Your task to perform on an android device: all mails in gmail Image 0: 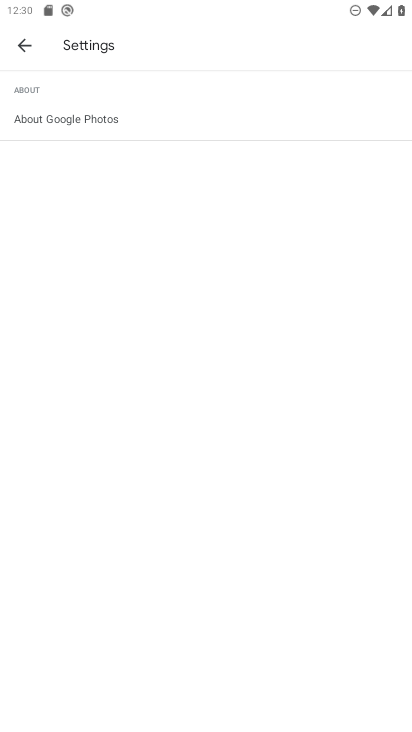
Step 0: press home button
Your task to perform on an android device: all mails in gmail Image 1: 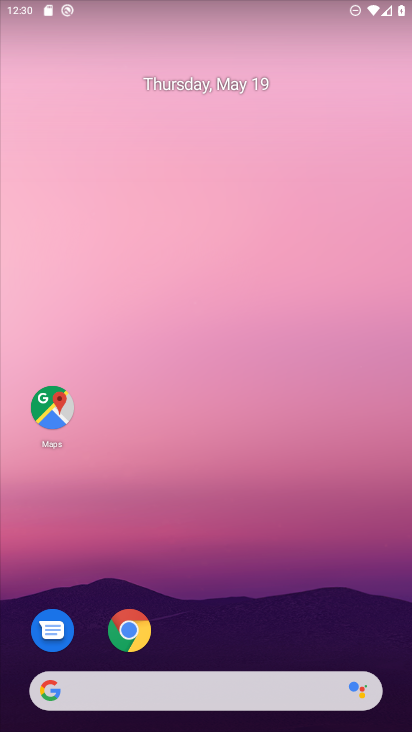
Step 1: drag from (178, 618) to (277, 168)
Your task to perform on an android device: all mails in gmail Image 2: 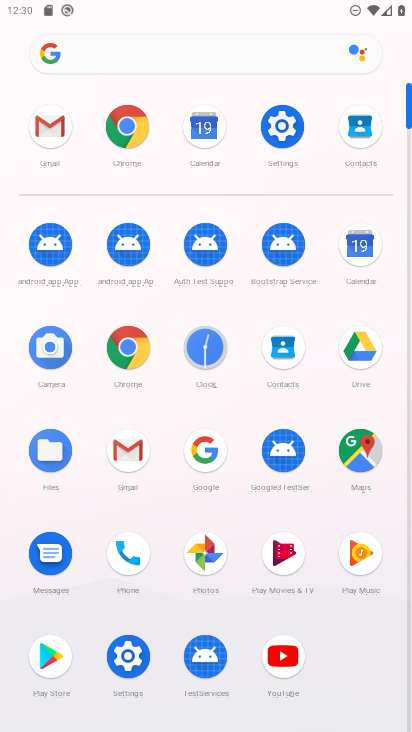
Step 2: click (143, 452)
Your task to perform on an android device: all mails in gmail Image 3: 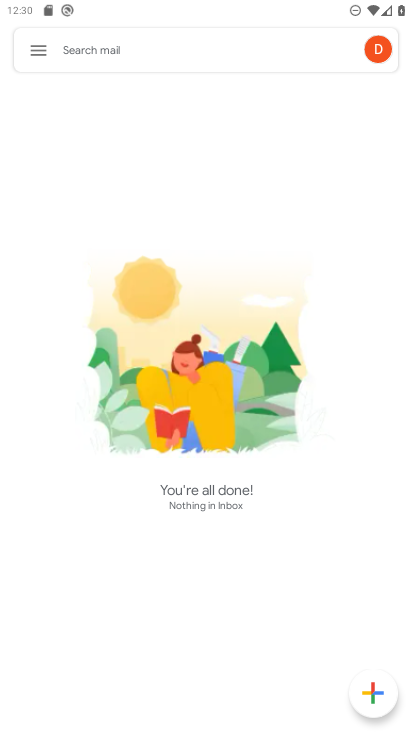
Step 3: click (56, 49)
Your task to perform on an android device: all mails in gmail Image 4: 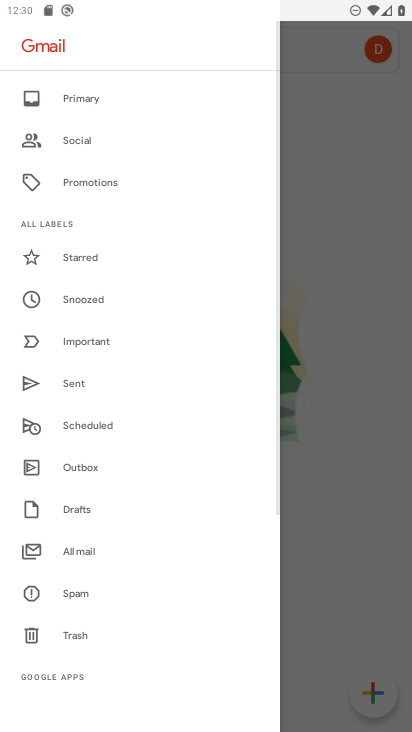
Step 4: click (89, 554)
Your task to perform on an android device: all mails in gmail Image 5: 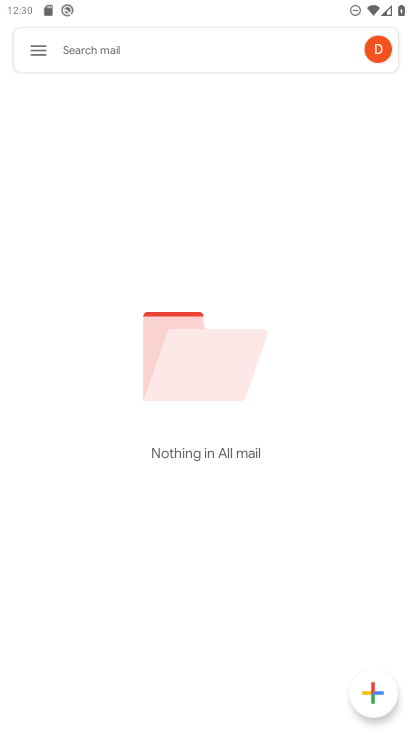
Step 5: task complete